Your task to perform on an android device: see sites visited before in the chrome app Image 0: 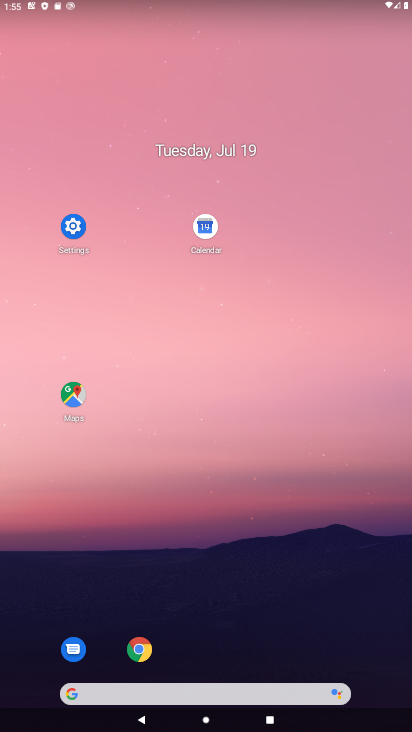
Step 0: click (141, 644)
Your task to perform on an android device: see sites visited before in the chrome app Image 1: 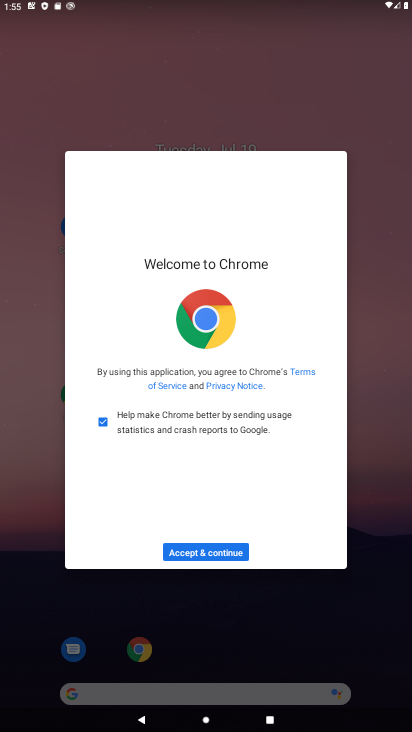
Step 1: click (233, 557)
Your task to perform on an android device: see sites visited before in the chrome app Image 2: 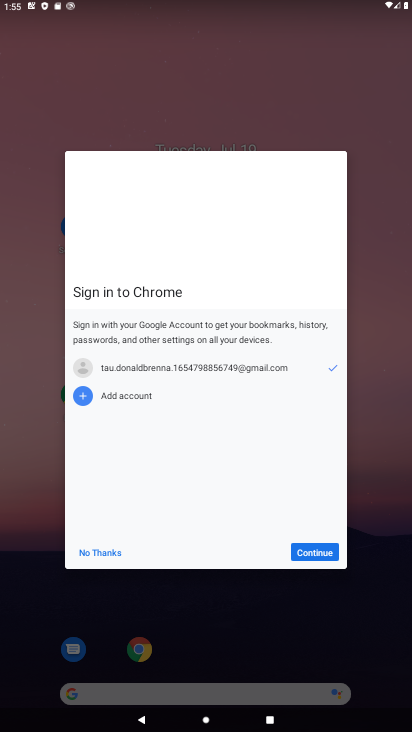
Step 2: click (332, 549)
Your task to perform on an android device: see sites visited before in the chrome app Image 3: 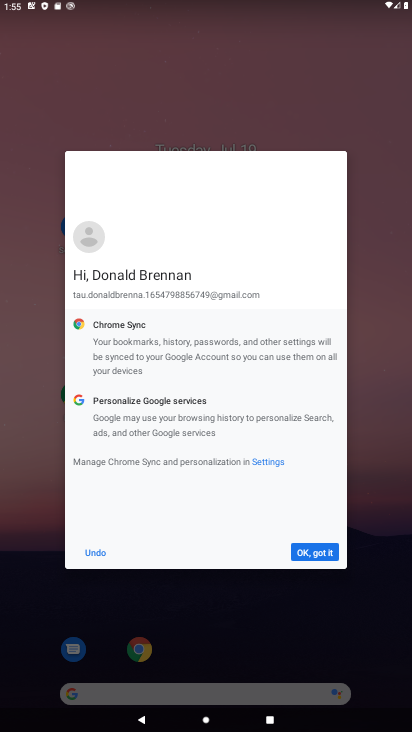
Step 3: click (330, 554)
Your task to perform on an android device: see sites visited before in the chrome app Image 4: 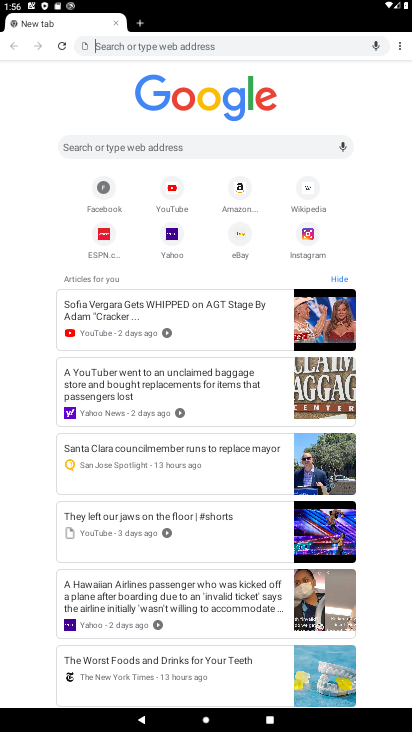
Step 4: click (400, 42)
Your task to perform on an android device: see sites visited before in the chrome app Image 5: 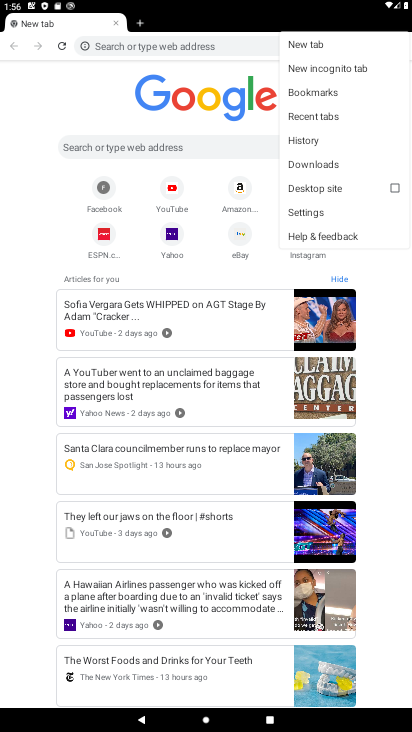
Step 5: click (305, 116)
Your task to perform on an android device: see sites visited before in the chrome app Image 6: 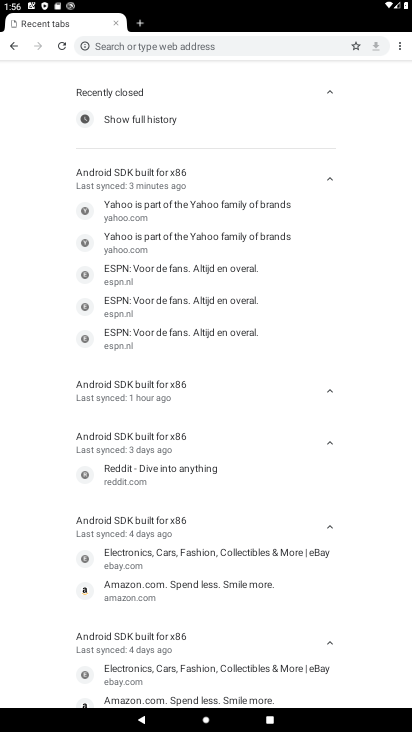
Step 6: task complete